Your task to perform on an android device: What's the weather today? Image 0: 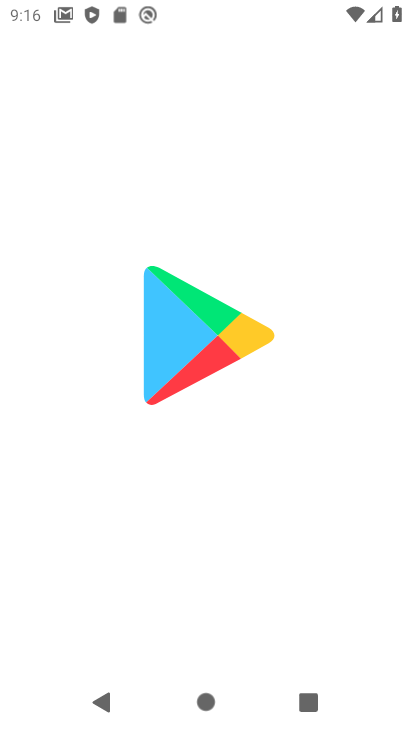
Step 0: drag from (314, 532) to (304, 244)
Your task to perform on an android device: What's the weather today? Image 1: 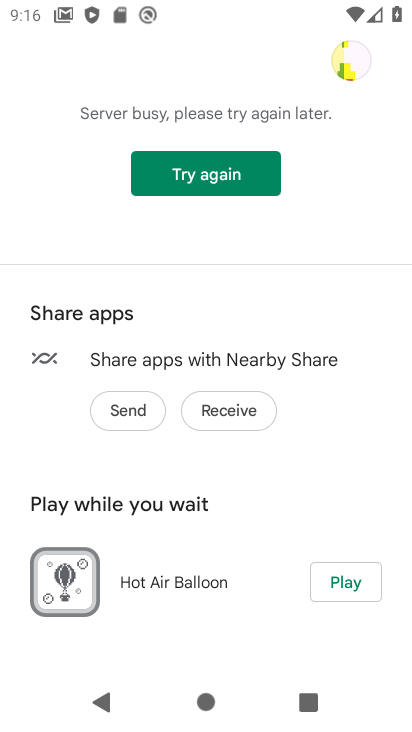
Step 1: press home button
Your task to perform on an android device: What's the weather today? Image 2: 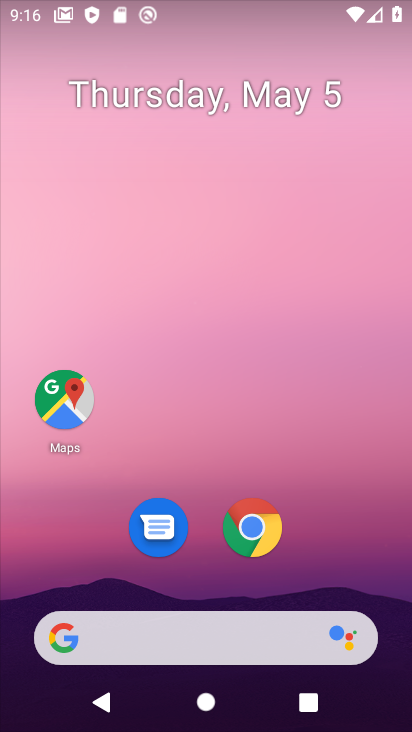
Step 2: click (266, 509)
Your task to perform on an android device: What's the weather today? Image 3: 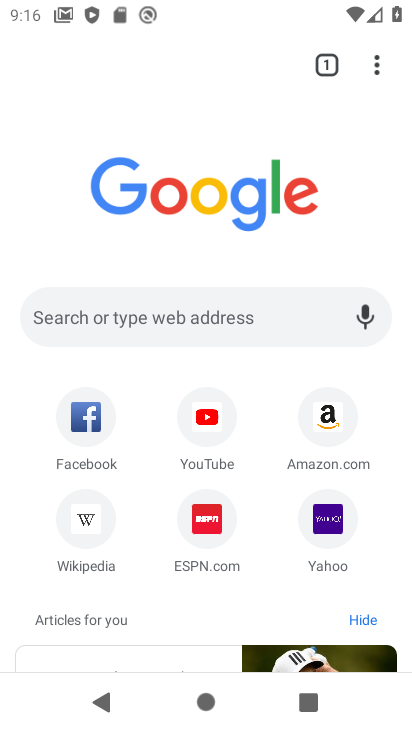
Step 3: click (206, 322)
Your task to perform on an android device: What's the weather today? Image 4: 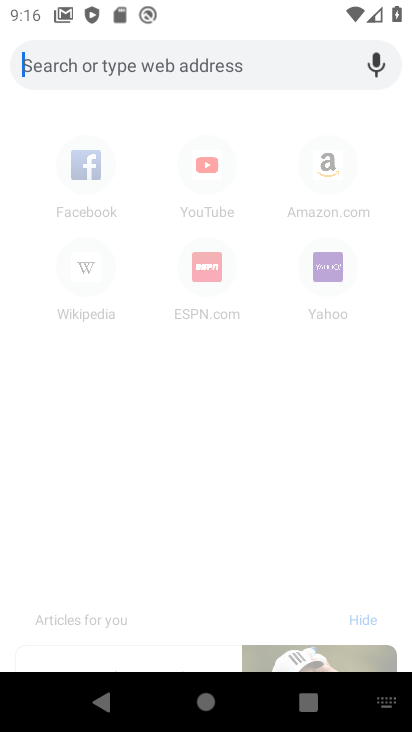
Step 4: type "What's the weather today?"
Your task to perform on an android device: What's the weather today? Image 5: 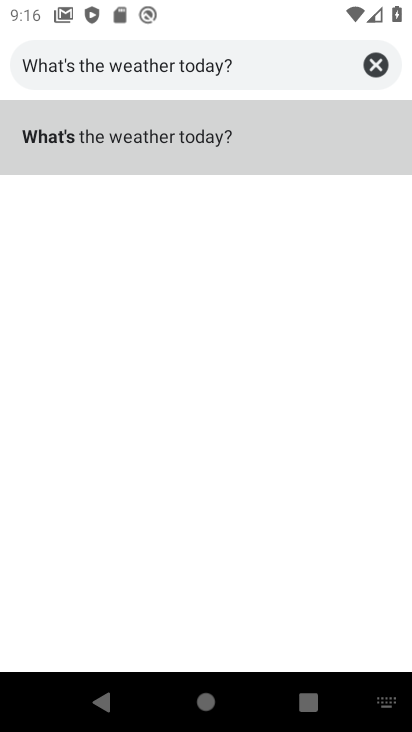
Step 5: click (137, 145)
Your task to perform on an android device: What's the weather today? Image 6: 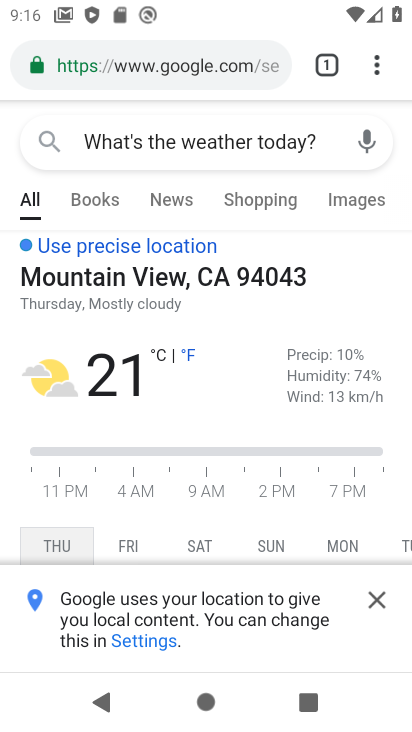
Step 6: click (376, 604)
Your task to perform on an android device: What's the weather today? Image 7: 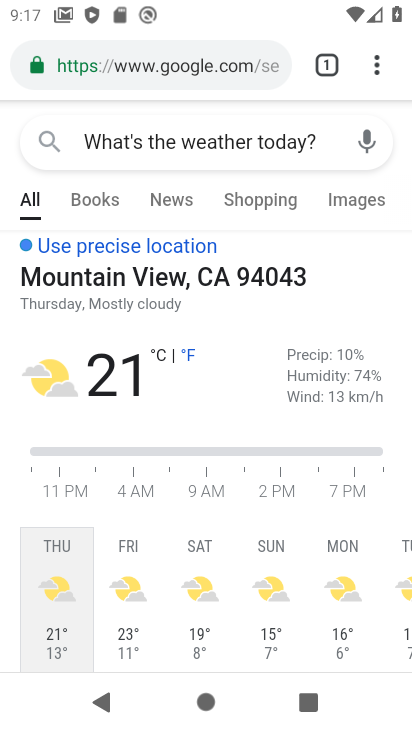
Step 7: task complete